Your task to perform on an android device: Search for Italian restaurants on Maps Image 0: 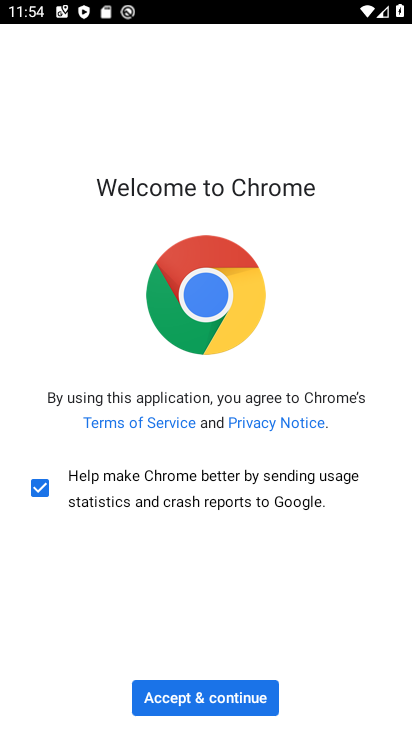
Step 0: press home button
Your task to perform on an android device: Search for Italian restaurants on Maps Image 1: 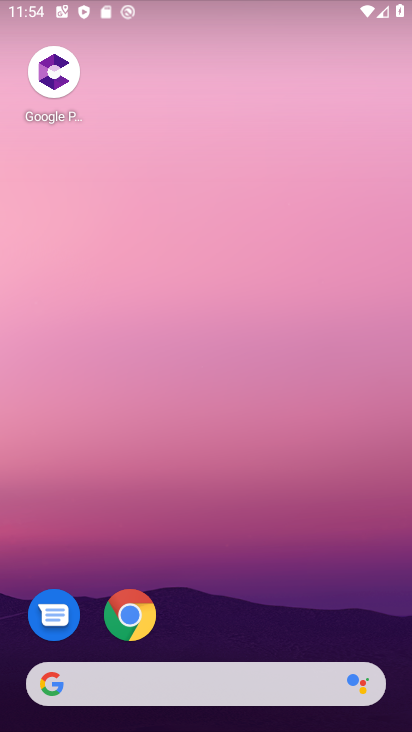
Step 1: drag from (378, 618) to (388, 237)
Your task to perform on an android device: Search for Italian restaurants on Maps Image 2: 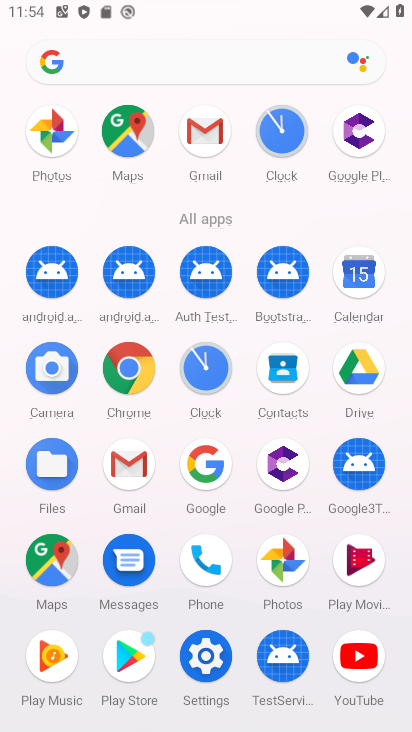
Step 2: click (62, 564)
Your task to perform on an android device: Search for Italian restaurants on Maps Image 3: 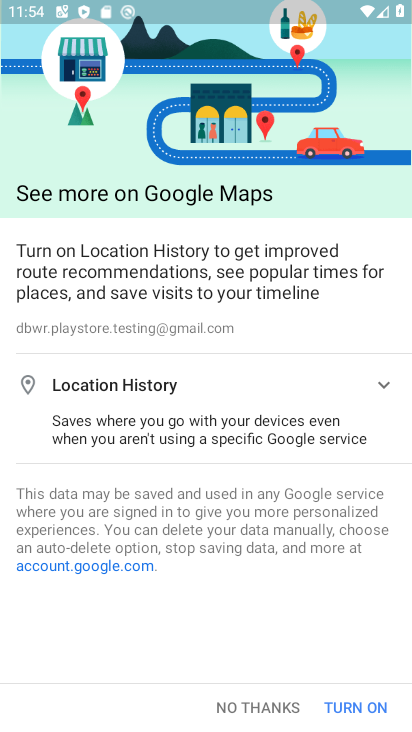
Step 3: click (252, 704)
Your task to perform on an android device: Search for Italian restaurants on Maps Image 4: 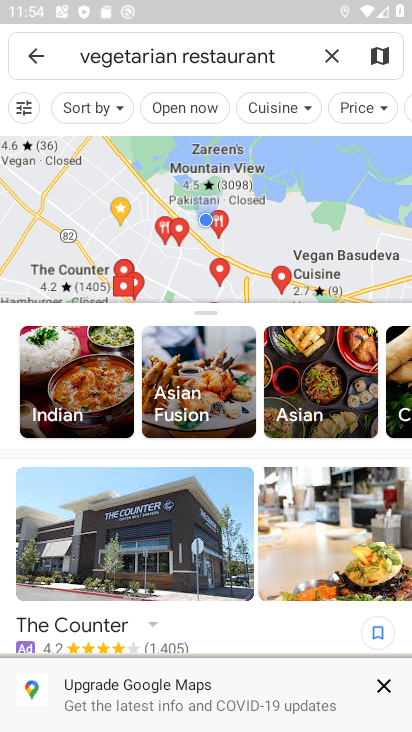
Step 4: click (330, 58)
Your task to perform on an android device: Search for Italian restaurants on Maps Image 5: 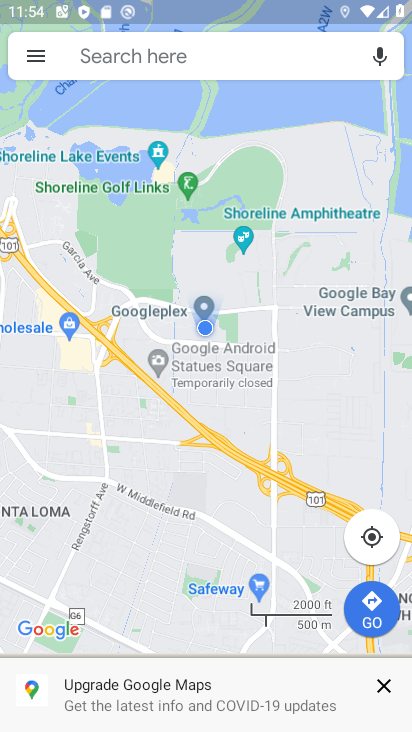
Step 5: click (172, 55)
Your task to perform on an android device: Search for Italian restaurants on Maps Image 6: 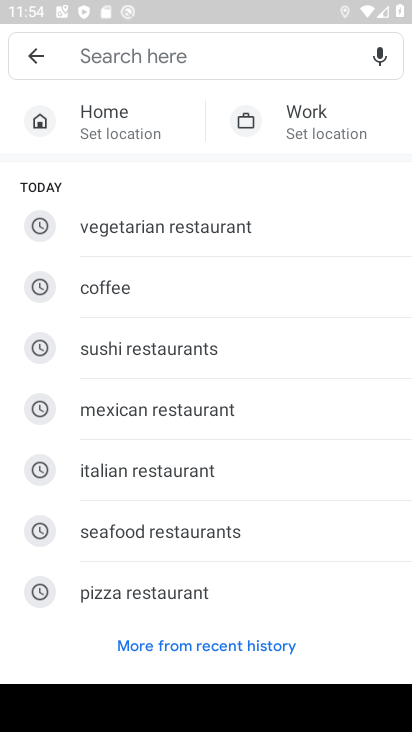
Step 6: click (152, 473)
Your task to perform on an android device: Search for Italian restaurants on Maps Image 7: 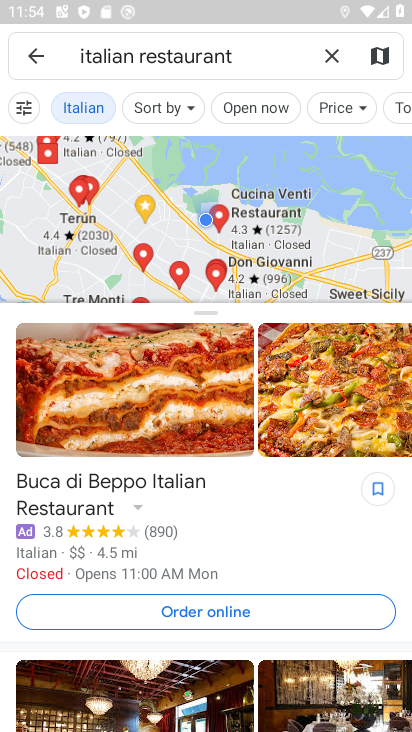
Step 7: task complete